Your task to perform on an android device: Open eBay Image 0: 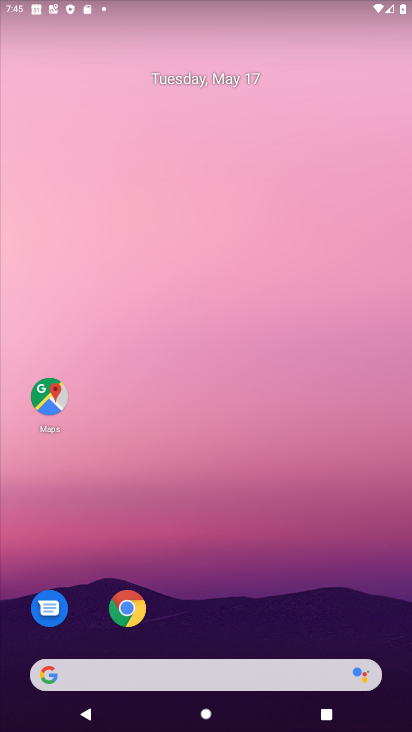
Step 0: click (132, 609)
Your task to perform on an android device: Open eBay Image 1: 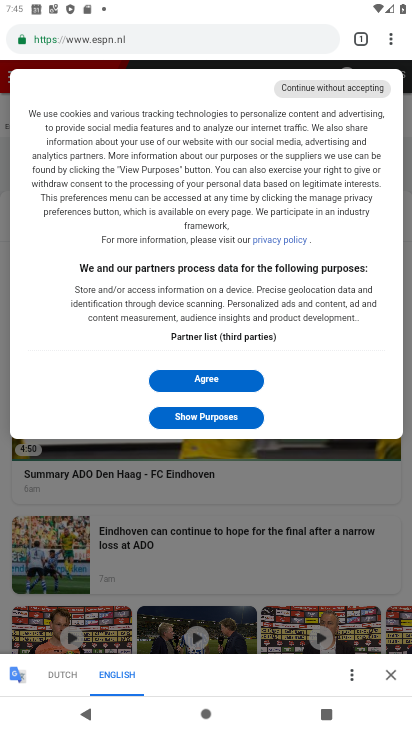
Step 1: click (362, 43)
Your task to perform on an android device: Open eBay Image 2: 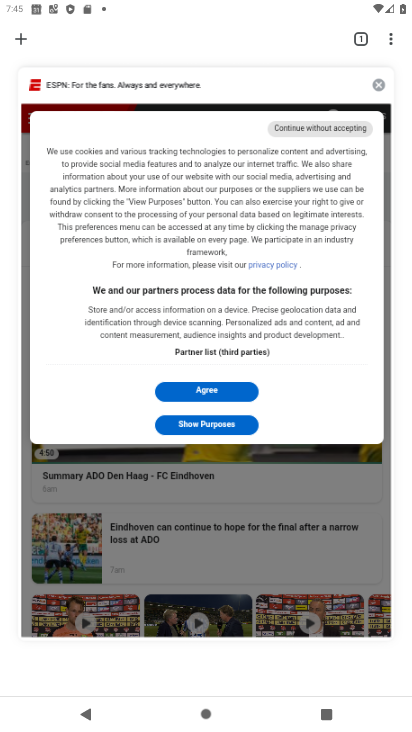
Step 2: click (10, 35)
Your task to perform on an android device: Open eBay Image 3: 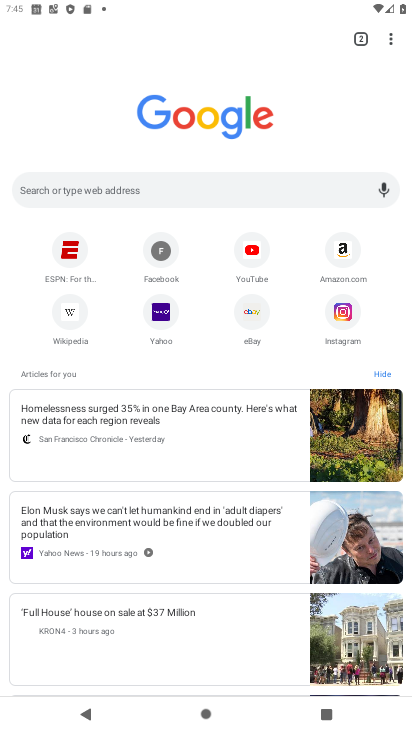
Step 3: click (252, 319)
Your task to perform on an android device: Open eBay Image 4: 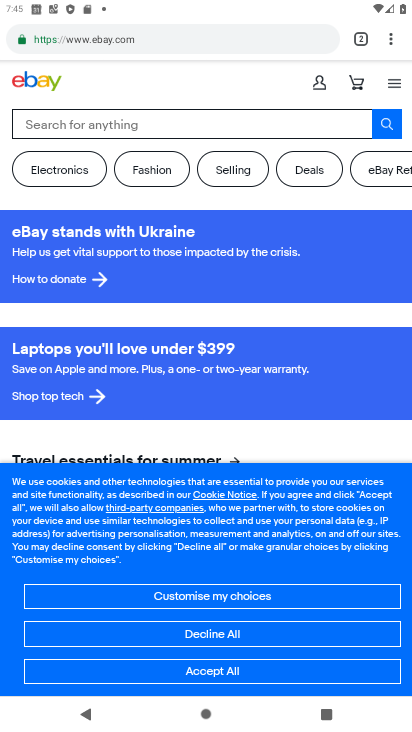
Step 4: task complete